Your task to perform on an android device: Open Google Chrome and open the bookmarks view Image 0: 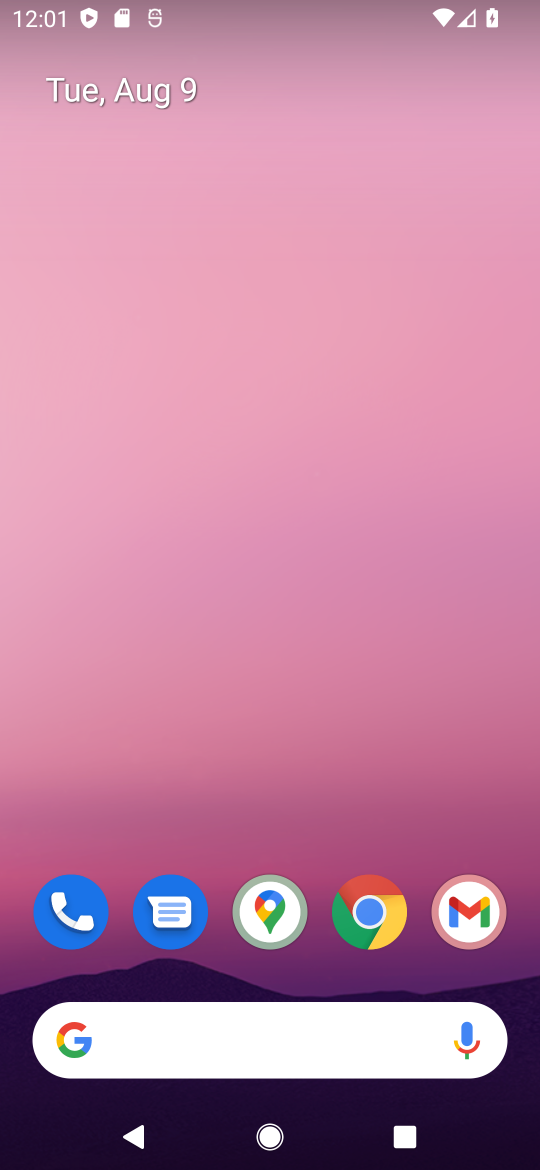
Step 0: click (383, 925)
Your task to perform on an android device: Open Google Chrome and open the bookmarks view Image 1: 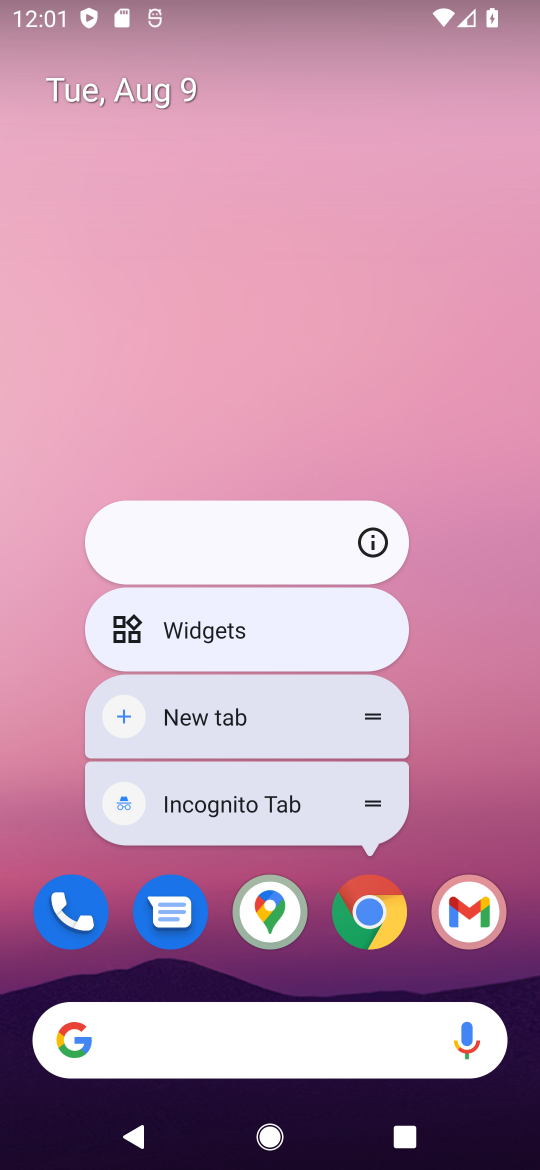
Step 1: click (367, 918)
Your task to perform on an android device: Open Google Chrome and open the bookmarks view Image 2: 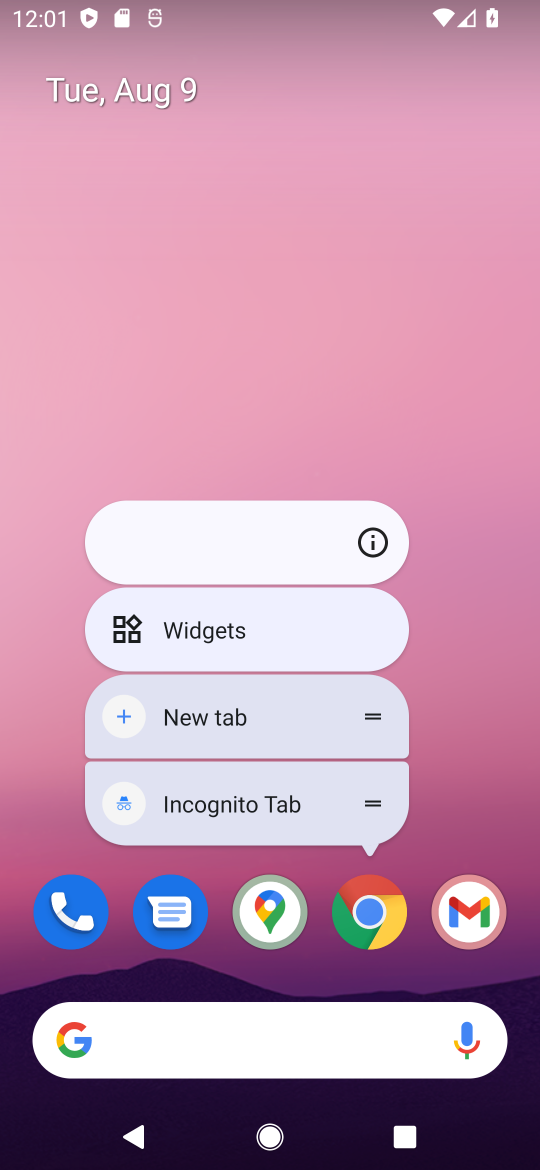
Step 2: click (367, 929)
Your task to perform on an android device: Open Google Chrome and open the bookmarks view Image 3: 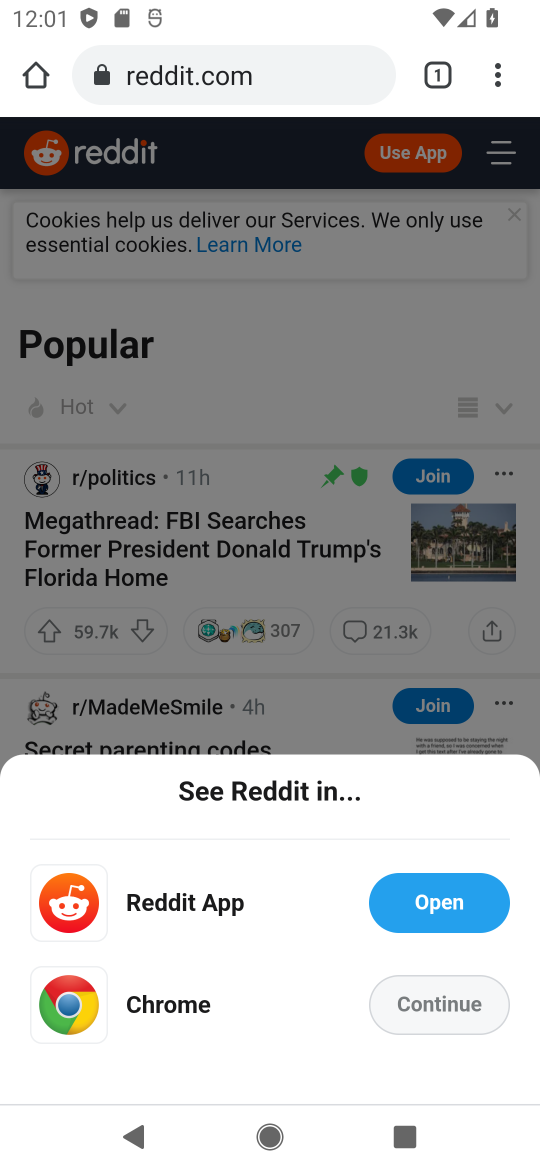
Step 3: click (496, 72)
Your task to perform on an android device: Open Google Chrome and open the bookmarks view Image 4: 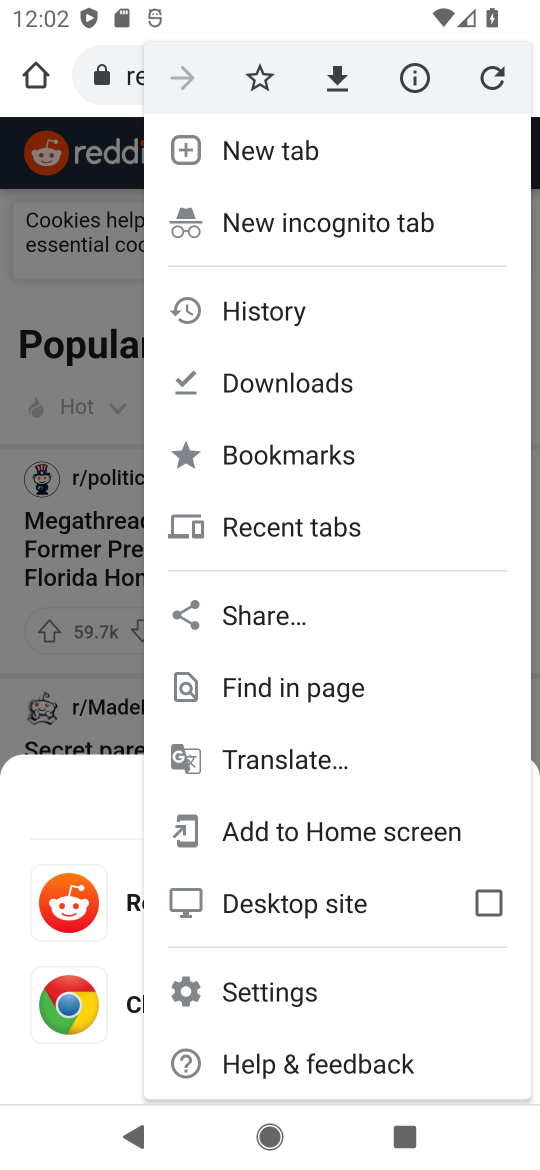
Step 4: click (256, 452)
Your task to perform on an android device: Open Google Chrome and open the bookmarks view Image 5: 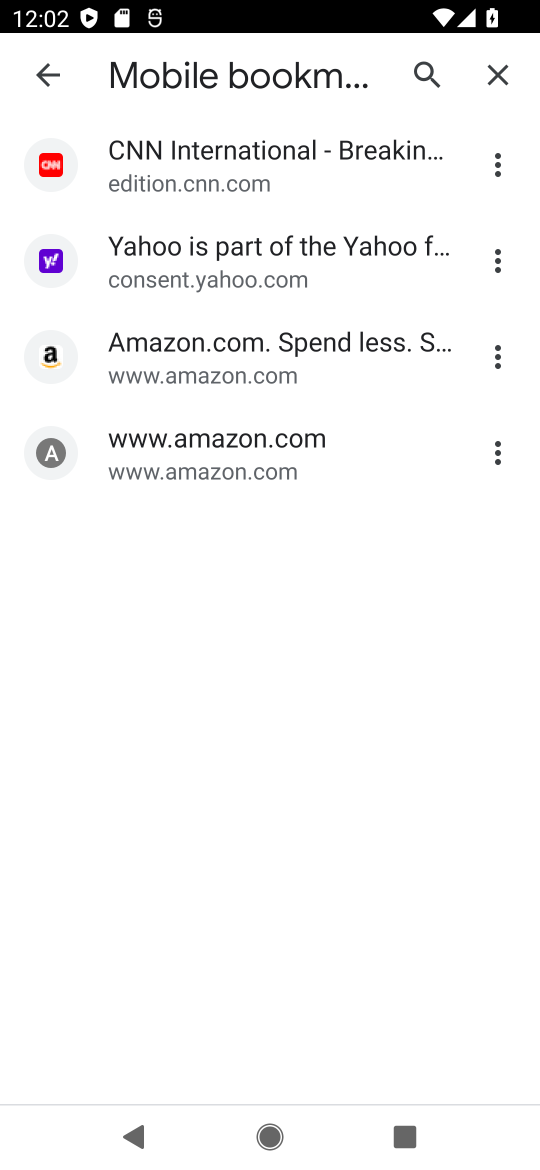
Step 5: task complete